Your task to perform on an android device: toggle show notifications on the lock screen Image 0: 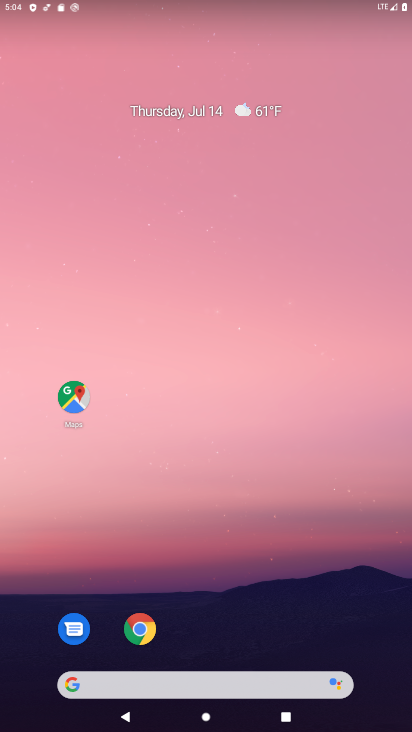
Step 0: drag from (246, 587) to (0, 13)
Your task to perform on an android device: toggle show notifications on the lock screen Image 1: 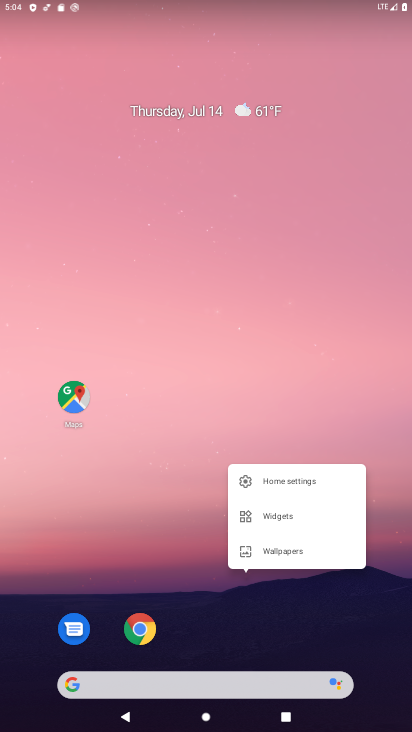
Step 1: click (181, 243)
Your task to perform on an android device: toggle show notifications on the lock screen Image 2: 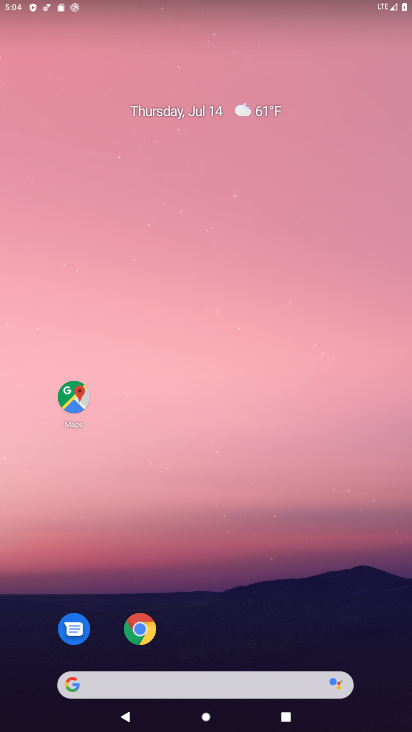
Step 2: drag from (322, 599) to (246, 43)
Your task to perform on an android device: toggle show notifications on the lock screen Image 3: 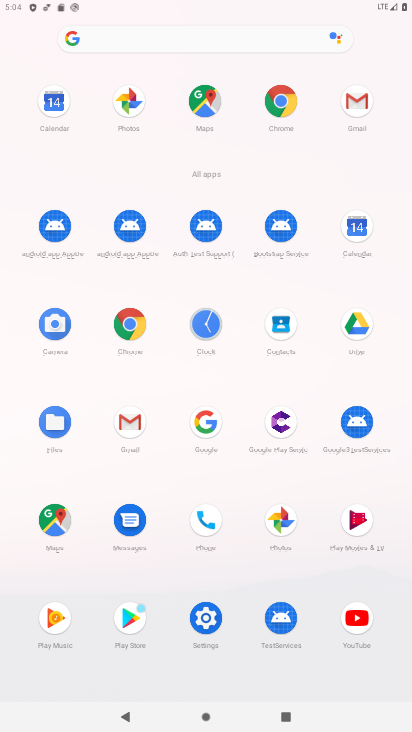
Step 3: click (214, 619)
Your task to perform on an android device: toggle show notifications on the lock screen Image 4: 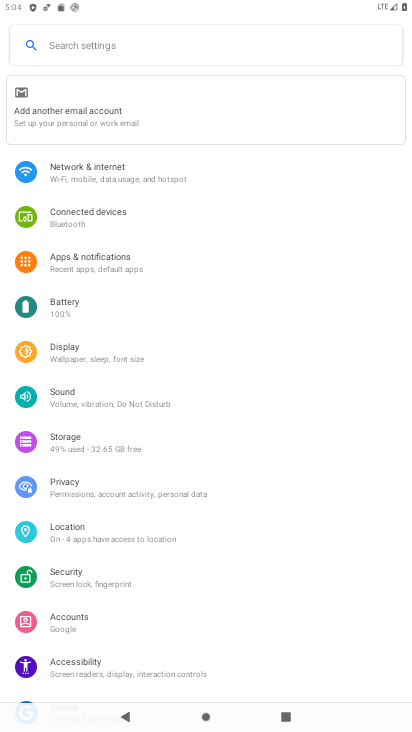
Step 4: click (104, 271)
Your task to perform on an android device: toggle show notifications on the lock screen Image 5: 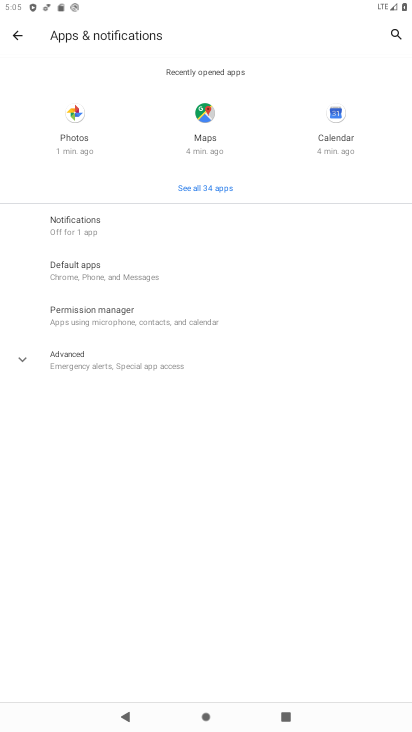
Step 5: click (92, 223)
Your task to perform on an android device: toggle show notifications on the lock screen Image 6: 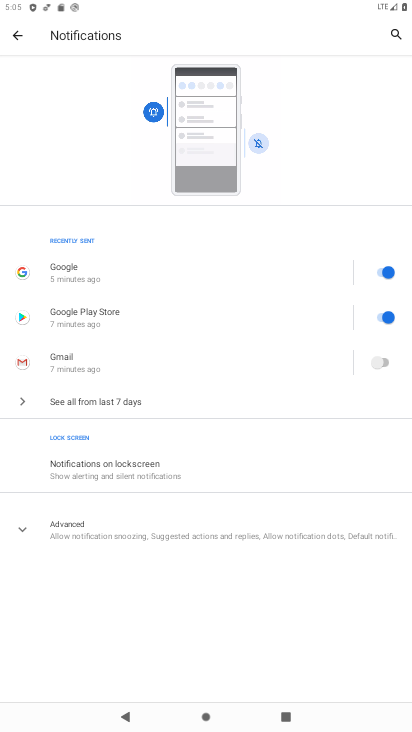
Step 6: click (164, 465)
Your task to perform on an android device: toggle show notifications on the lock screen Image 7: 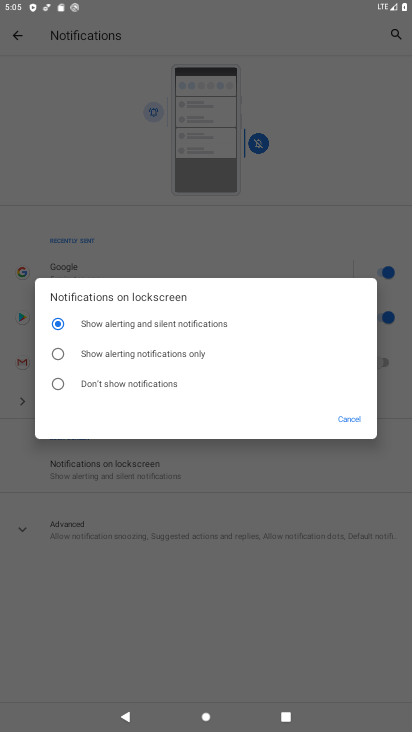
Step 7: click (157, 385)
Your task to perform on an android device: toggle show notifications on the lock screen Image 8: 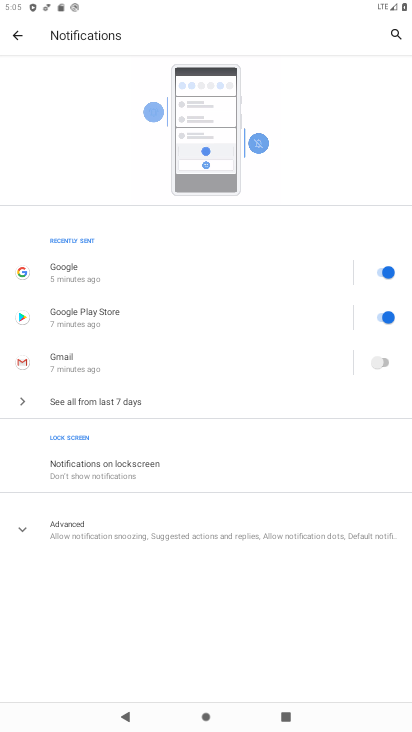
Step 8: task complete